Your task to perform on an android device: toggle notification dots Image 0: 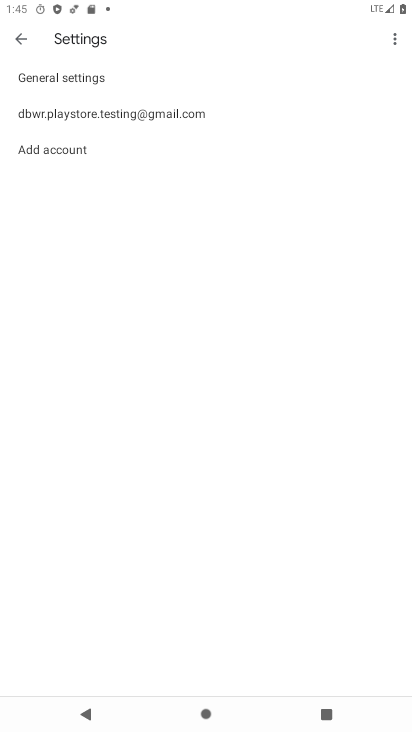
Step 0: press home button
Your task to perform on an android device: toggle notification dots Image 1: 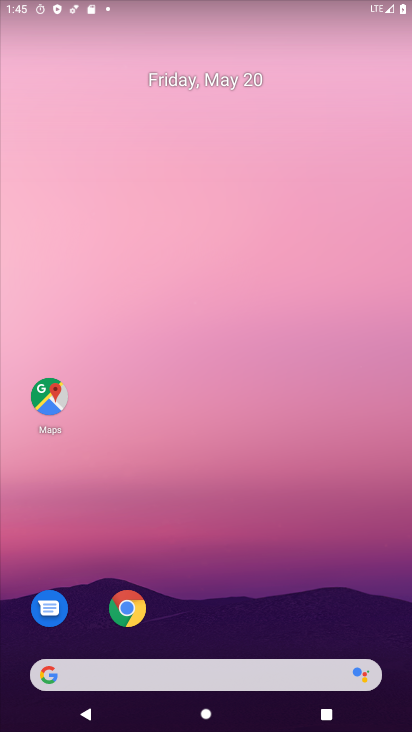
Step 1: drag from (249, 613) to (144, 60)
Your task to perform on an android device: toggle notification dots Image 2: 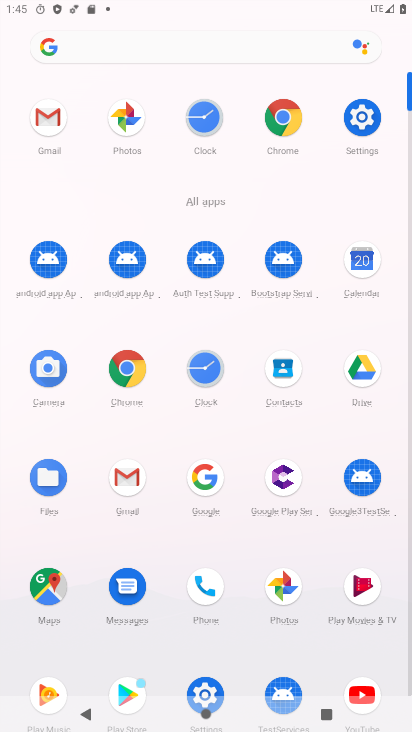
Step 2: click (365, 114)
Your task to perform on an android device: toggle notification dots Image 3: 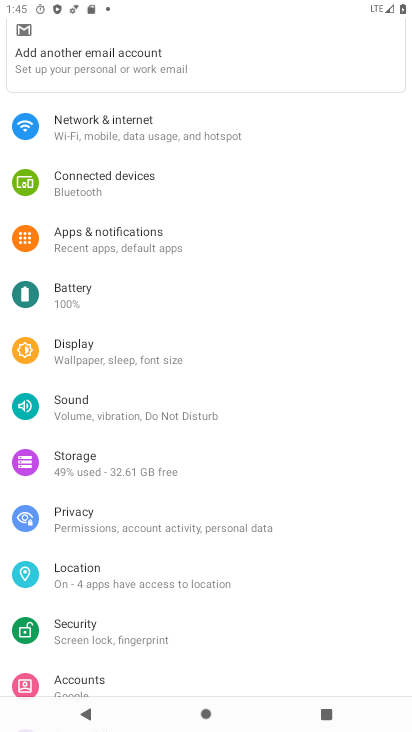
Step 3: click (127, 233)
Your task to perform on an android device: toggle notification dots Image 4: 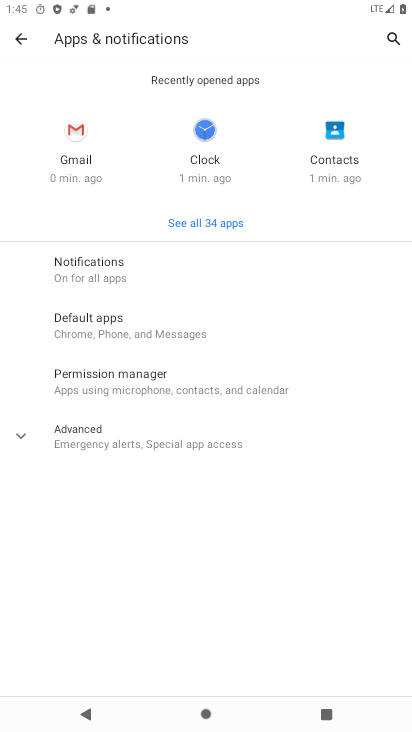
Step 4: click (80, 259)
Your task to perform on an android device: toggle notification dots Image 5: 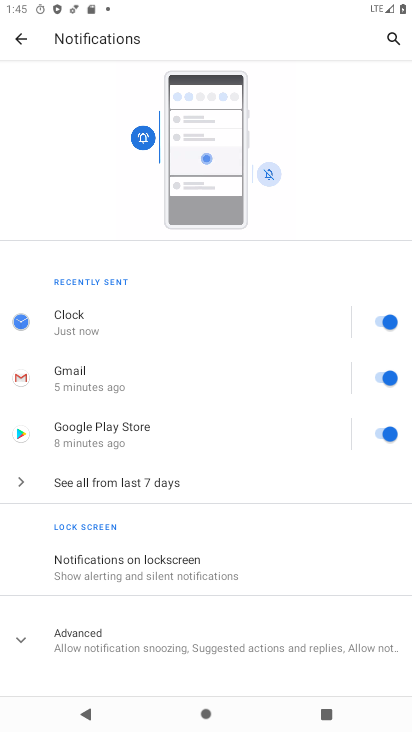
Step 5: click (60, 639)
Your task to perform on an android device: toggle notification dots Image 6: 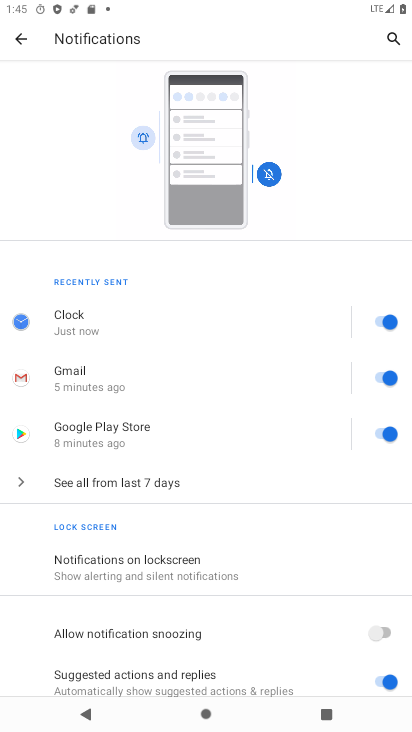
Step 6: drag from (181, 624) to (232, 516)
Your task to perform on an android device: toggle notification dots Image 7: 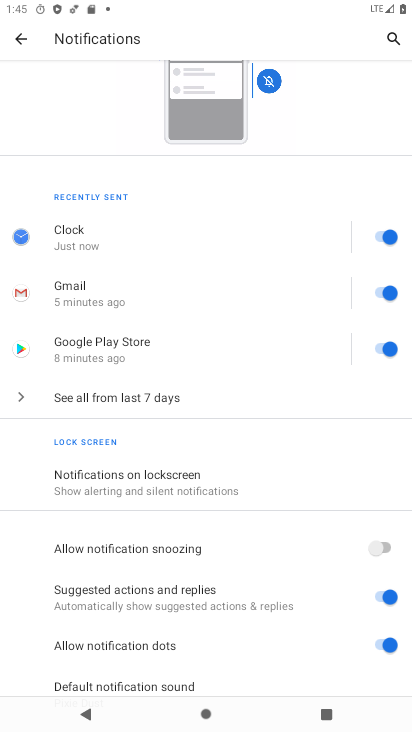
Step 7: drag from (202, 615) to (266, 529)
Your task to perform on an android device: toggle notification dots Image 8: 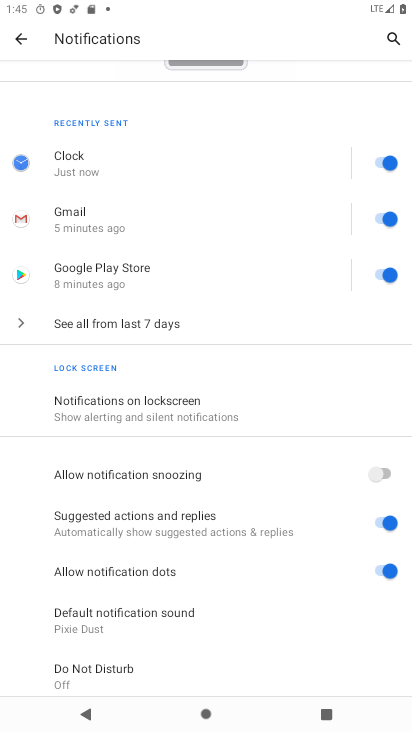
Step 8: click (385, 569)
Your task to perform on an android device: toggle notification dots Image 9: 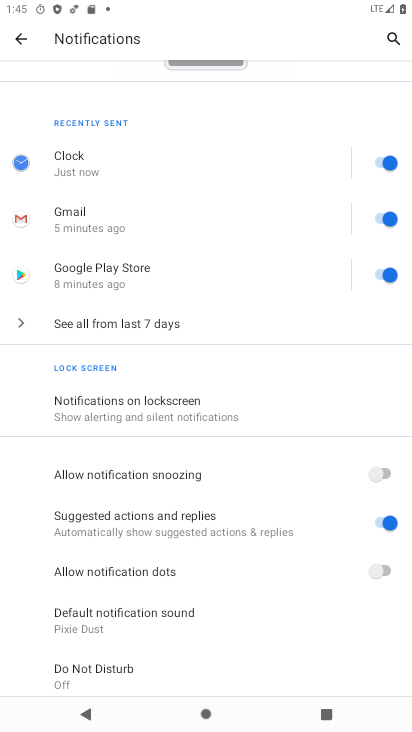
Step 9: task complete